Your task to perform on an android device: Open Google Maps Image 0: 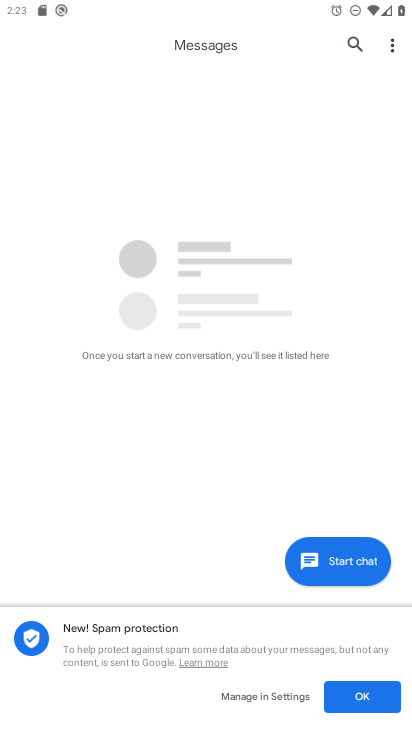
Step 0: press home button
Your task to perform on an android device: Open Google Maps Image 1: 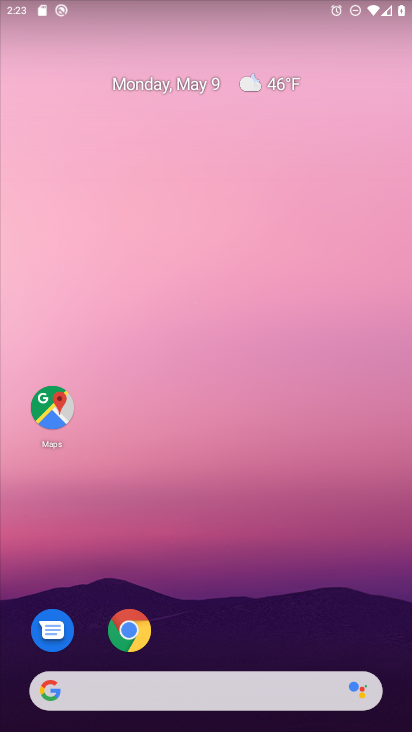
Step 1: drag from (345, 709) to (179, 283)
Your task to perform on an android device: Open Google Maps Image 2: 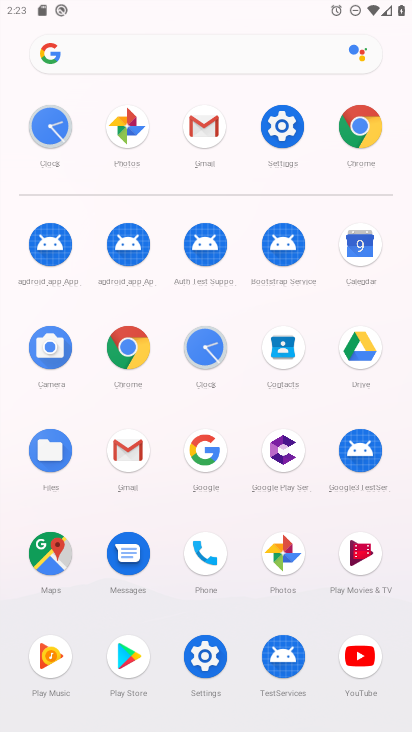
Step 2: click (57, 549)
Your task to perform on an android device: Open Google Maps Image 3: 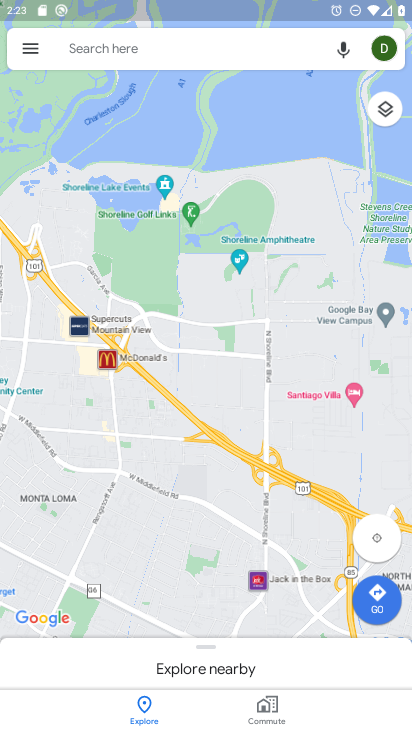
Step 3: click (381, 536)
Your task to perform on an android device: Open Google Maps Image 4: 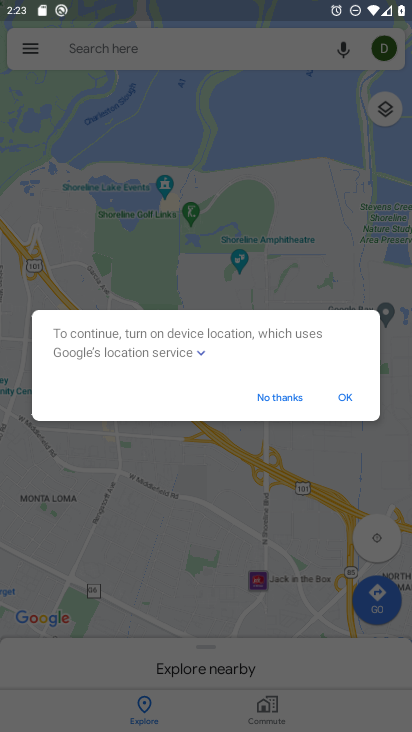
Step 4: click (284, 404)
Your task to perform on an android device: Open Google Maps Image 5: 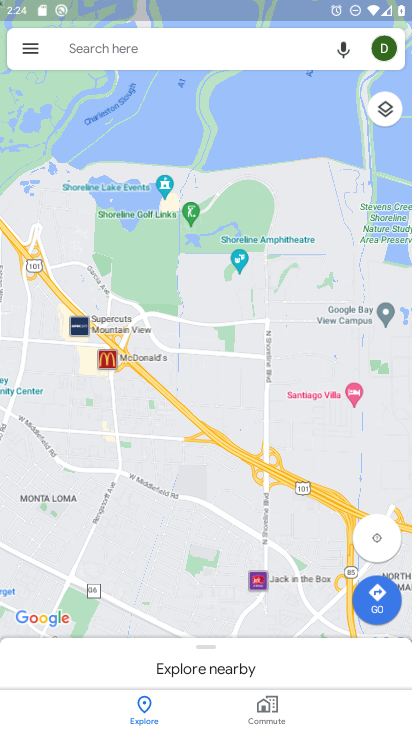
Step 5: task complete